Your task to perform on an android device: set default search engine in the chrome app Image 0: 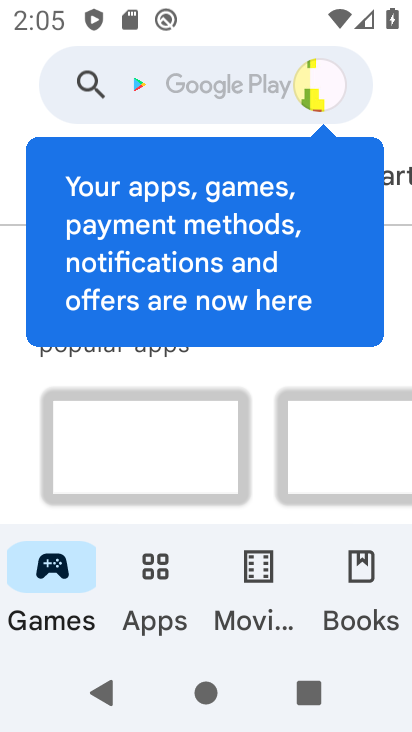
Step 0: press home button
Your task to perform on an android device: set default search engine in the chrome app Image 1: 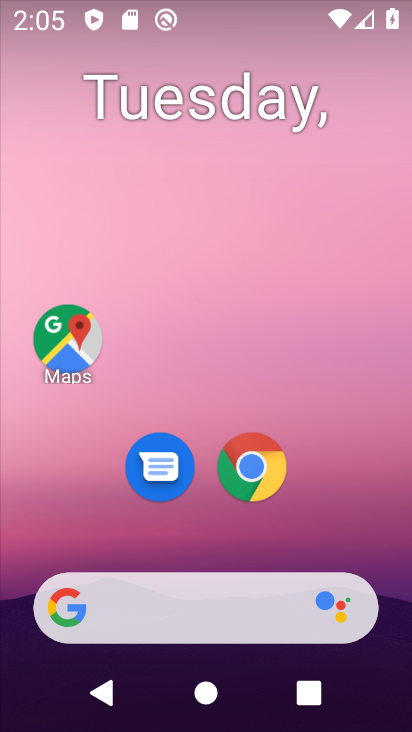
Step 1: drag from (371, 542) to (378, 112)
Your task to perform on an android device: set default search engine in the chrome app Image 2: 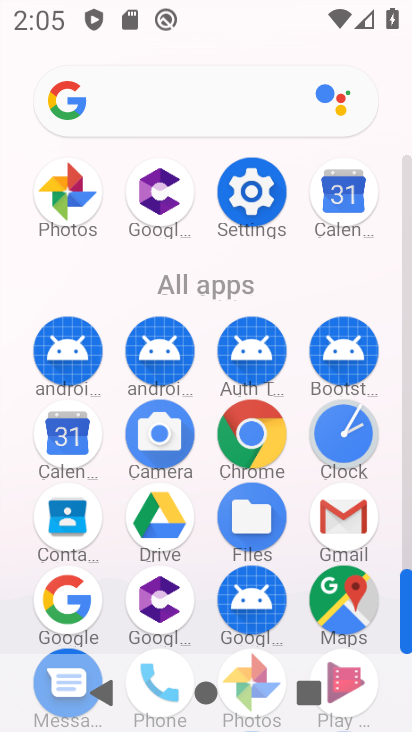
Step 2: click (264, 444)
Your task to perform on an android device: set default search engine in the chrome app Image 3: 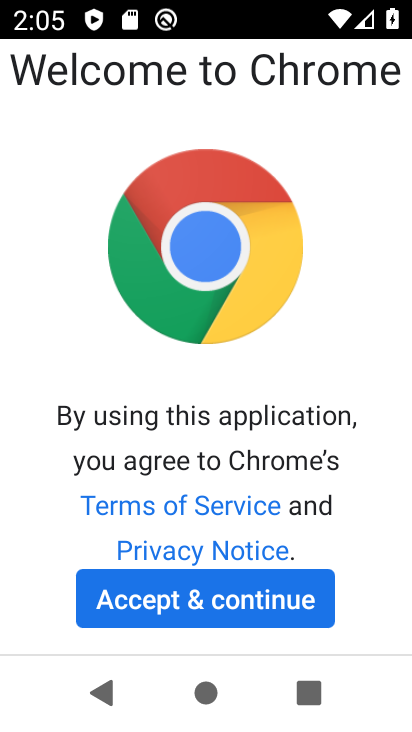
Step 3: click (203, 596)
Your task to perform on an android device: set default search engine in the chrome app Image 4: 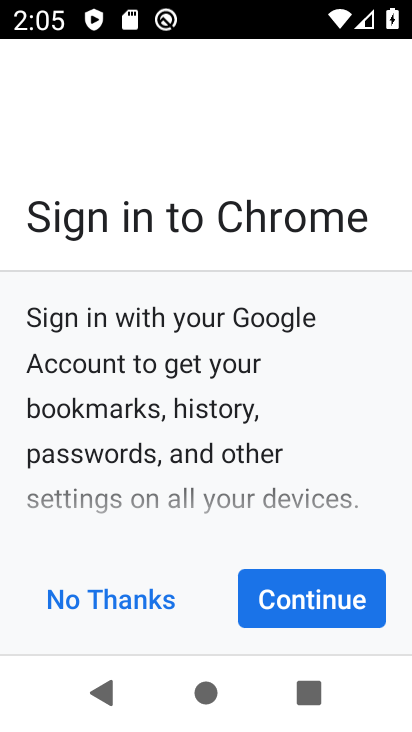
Step 4: click (268, 606)
Your task to perform on an android device: set default search engine in the chrome app Image 5: 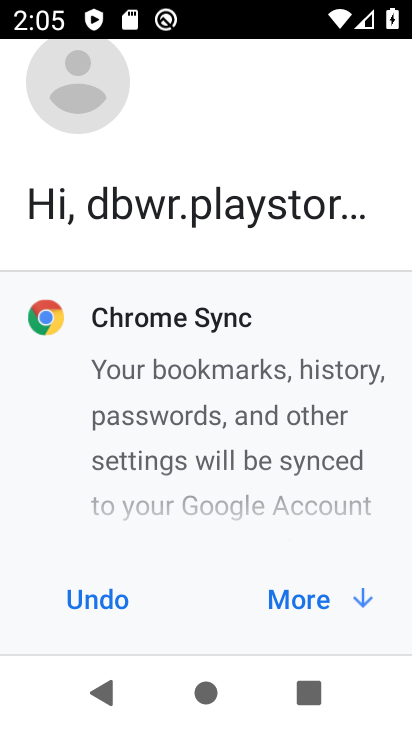
Step 5: click (300, 604)
Your task to perform on an android device: set default search engine in the chrome app Image 6: 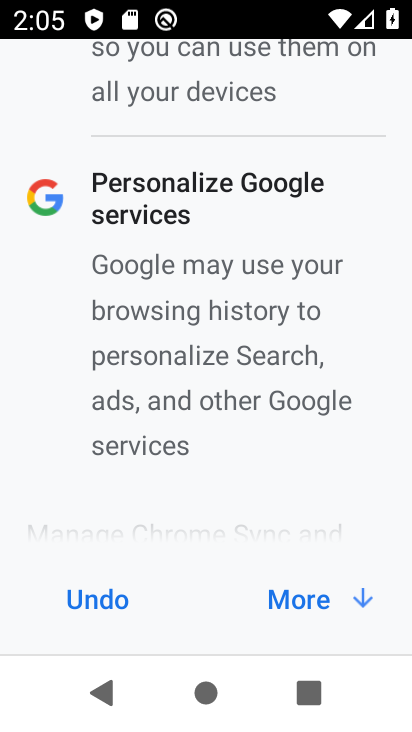
Step 6: click (300, 604)
Your task to perform on an android device: set default search engine in the chrome app Image 7: 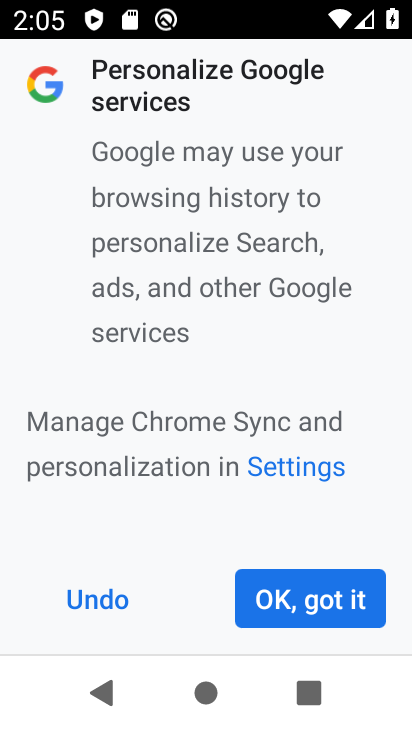
Step 7: click (300, 604)
Your task to perform on an android device: set default search engine in the chrome app Image 8: 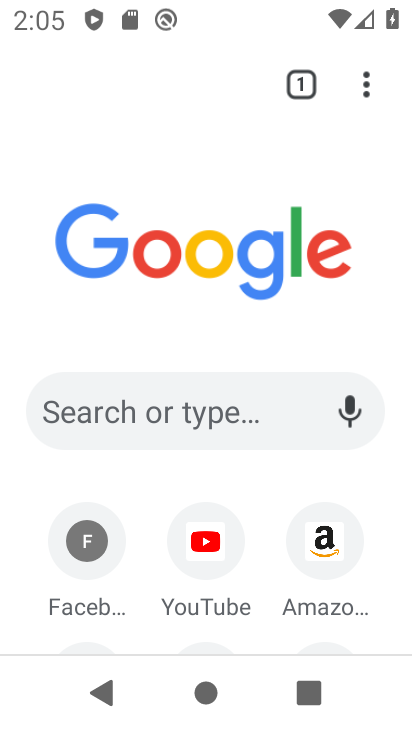
Step 8: click (366, 94)
Your task to perform on an android device: set default search engine in the chrome app Image 9: 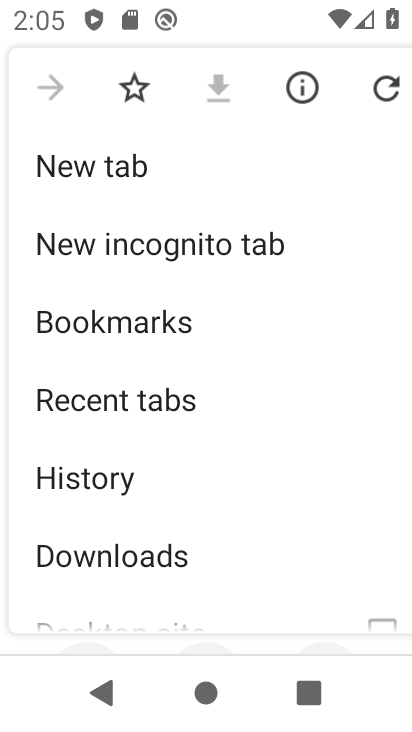
Step 9: drag from (340, 459) to (349, 356)
Your task to perform on an android device: set default search engine in the chrome app Image 10: 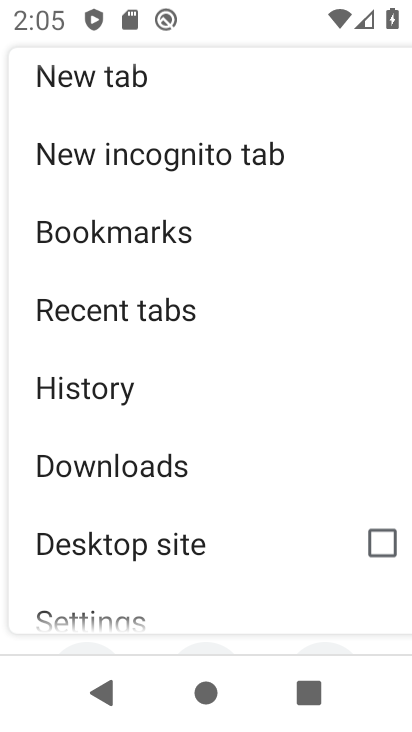
Step 10: drag from (315, 497) to (321, 354)
Your task to perform on an android device: set default search engine in the chrome app Image 11: 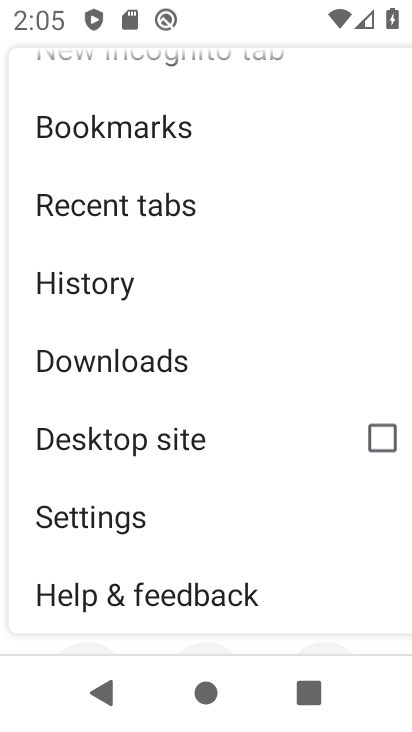
Step 11: drag from (301, 504) to (309, 401)
Your task to perform on an android device: set default search engine in the chrome app Image 12: 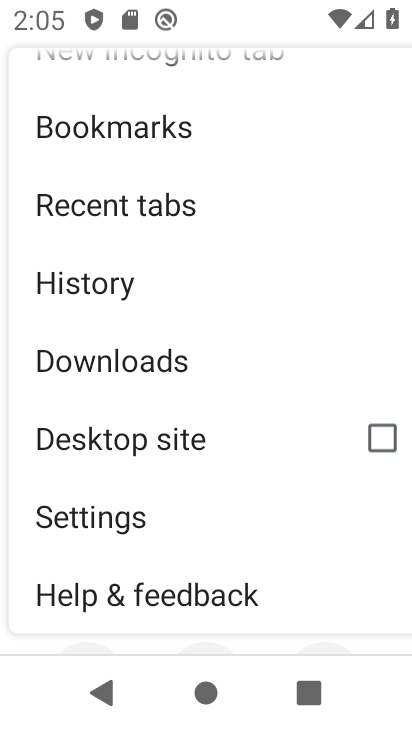
Step 12: click (159, 522)
Your task to perform on an android device: set default search engine in the chrome app Image 13: 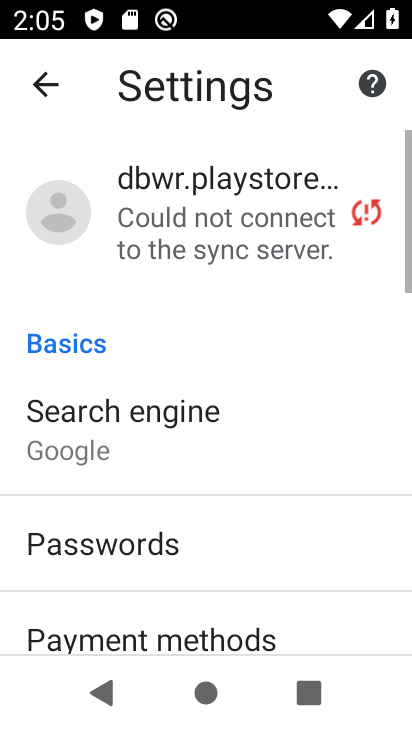
Step 13: drag from (330, 545) to (343, 443)
Your task to perform on an android device: set default search engine in the chrome app Image 14: 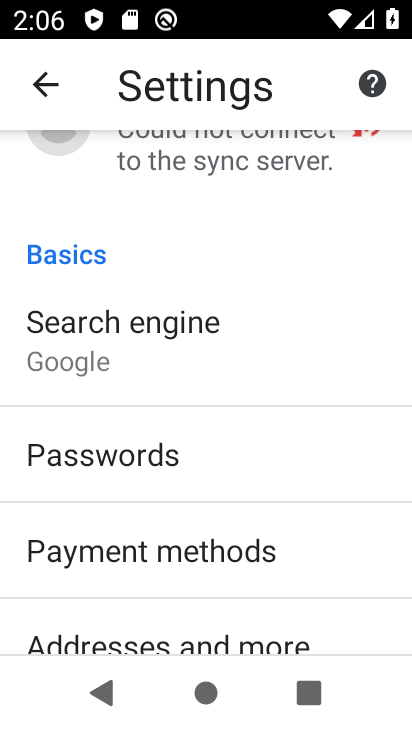
Step 14: click (218, 354)
Your task to perform on an android device: set default search engine in the chrome app Image 15: 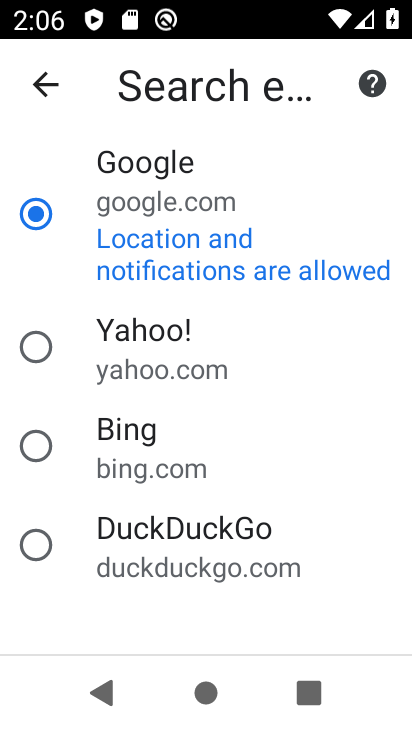
Step 15: click (134, 453)
Your task to perform on an android device: set default search engine in the chrome app Image 16: 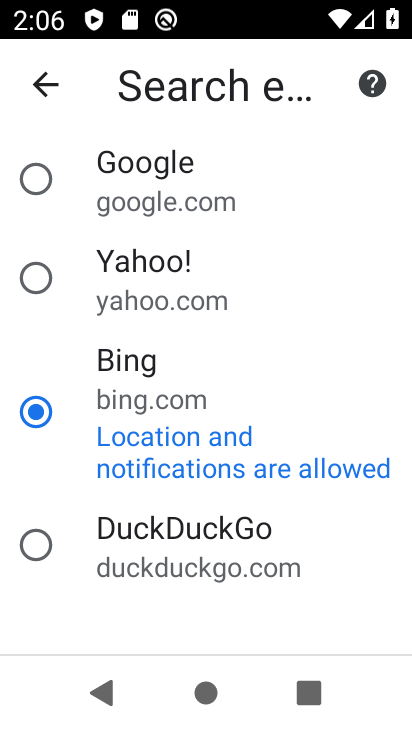
Step 16: task complete